Your task to perform on an android device: Open Chrome and go to settings Image 0: 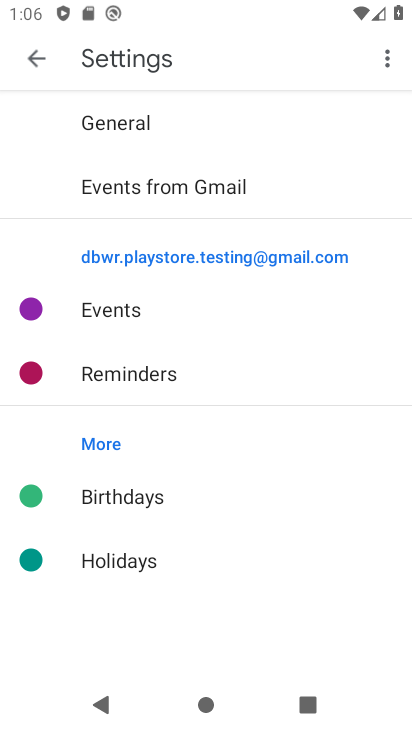
Step 0: press home button
Your task to perform on an android device: Open Chrome and go to settings Image 1: 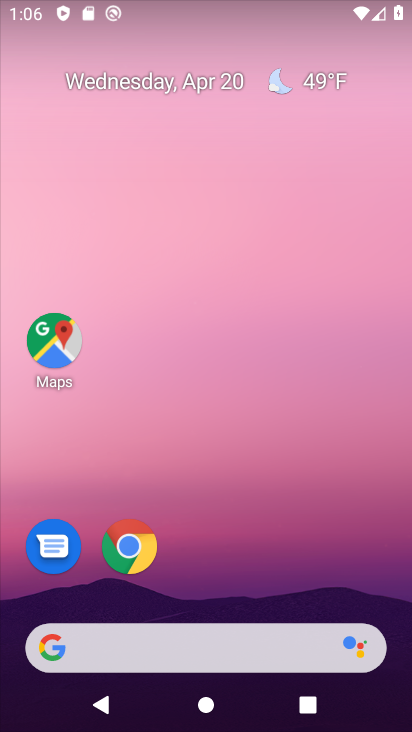
Step 1: click (128, 553)
Your task to perform on an android device: Open Chrome and go to settings Image 2: 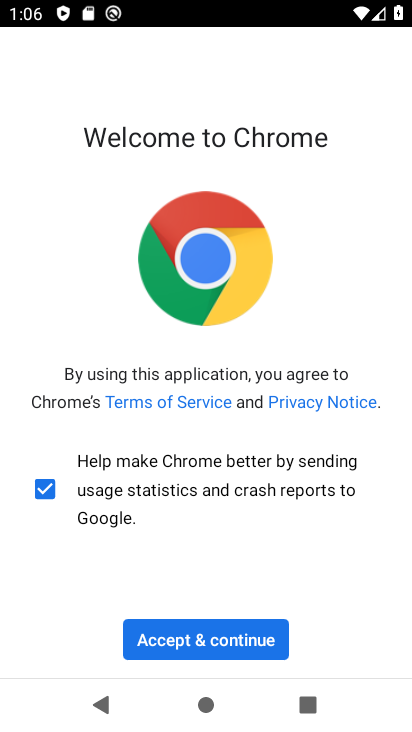
Step 2: click (229, 626)
Your task to perform on an android device: Open Chrome and go to settings Image 3: 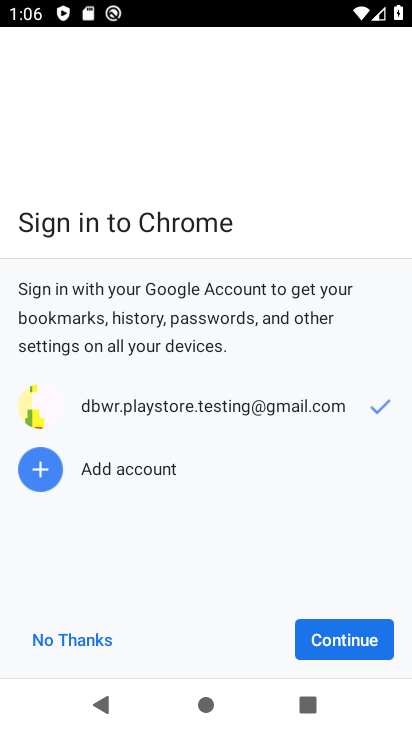
Step 3: click (318, 650)
Your task to perform on an android device: Open Chrome and go to settings Image 4: 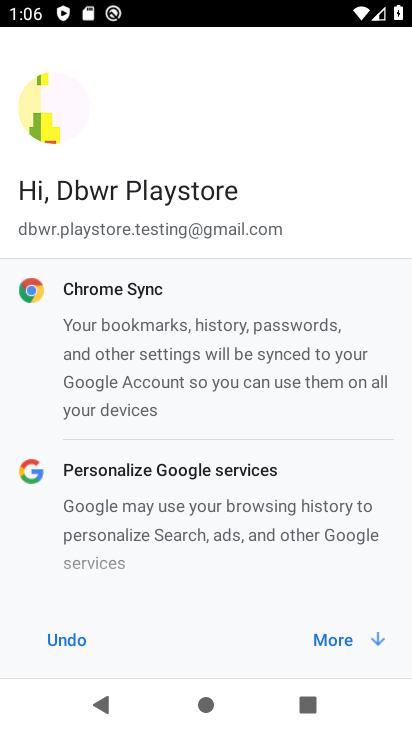
Step 4: click (318, 650)
Your task to perform on an android device: Open Chrome and go to settings Image 5: 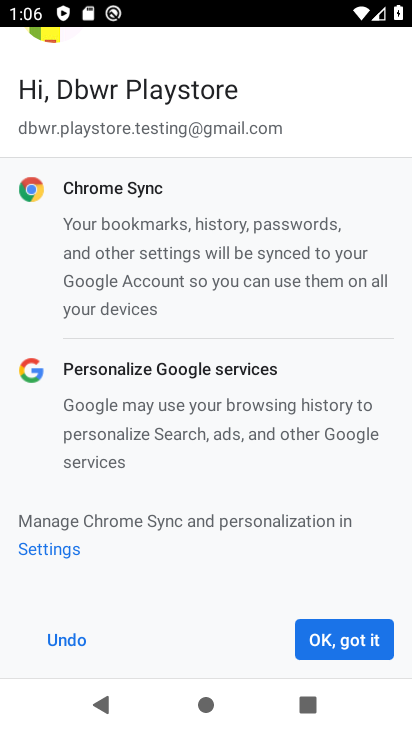
Step 5: click (318, 650)
Your task to perform on an android device: Open Chrome and go to settings Image 6: 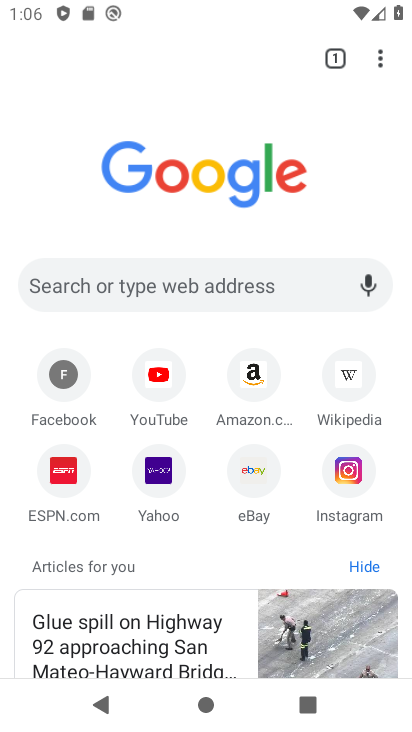
Step 6: click (384, 54)
Your task to perform on an android device: Open Chrome and go to settings Image 7: 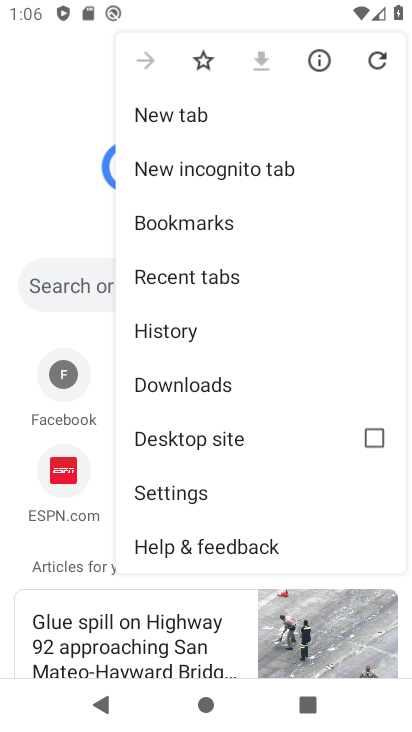
Step 7: click (188, 492)
Your task to perform on an android device: Open Chrome and go to settings Image 8: 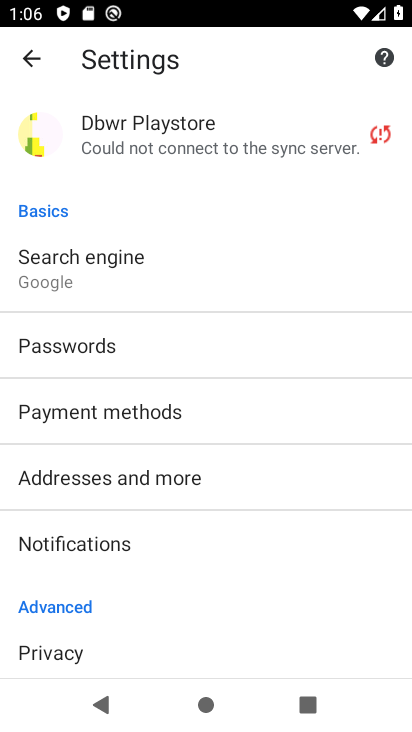
Step 8: task complete